Your task to perform on an android device: turn on the 12-hour format for clock Image 0: 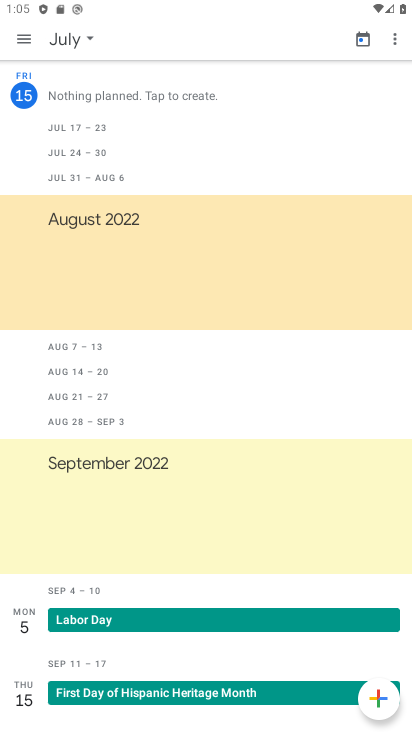
Step 0: press home button
Your task to perform on an android device: turn on the 12-hour format for clock Image 1: 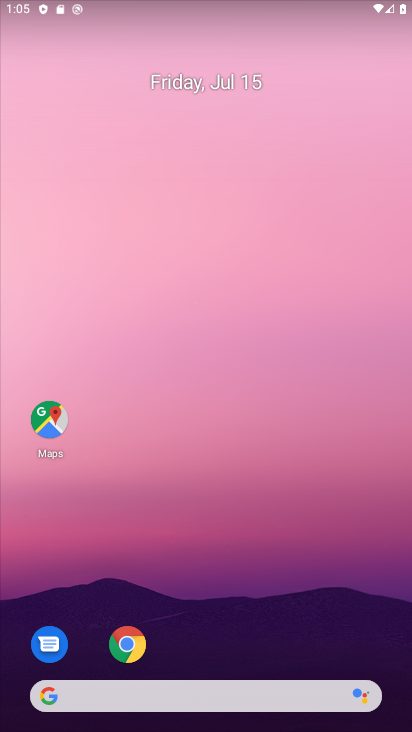
Step 1: drag from (379, 591) to (338, 18)
Your task to perform on an android device: turn on the 12-hour format for clock Image 2: 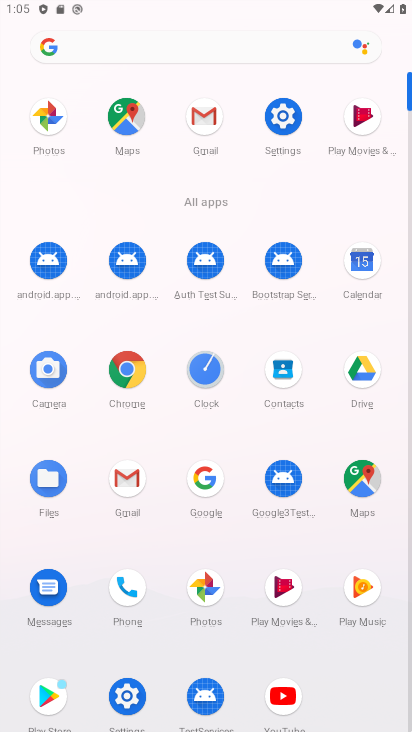
Step 2: click (209, 375)
Your task to perform on an android device: turn on the 12-hour format for clock Image 3: 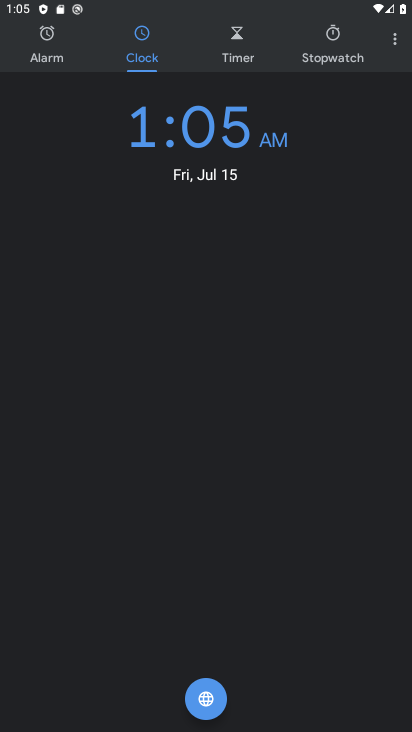
Step 3: click (389, 40)
Your task to perform on an android device: turn on the 12-hour format for clock Image 4: 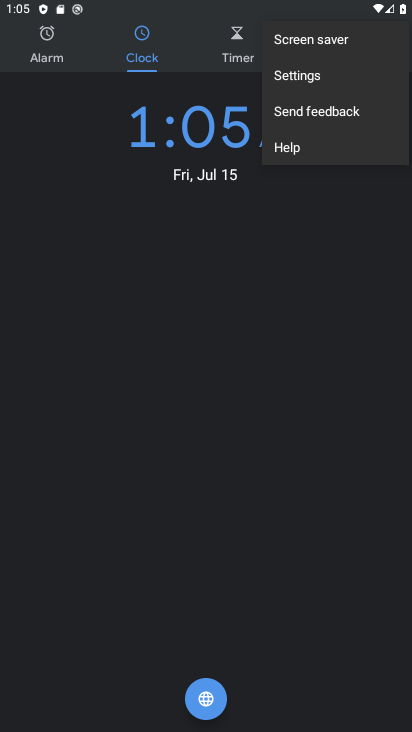
Step 4: click (304, 79)
Your task to perform on an android device: turn on the 12-hour format for clock Image 5: 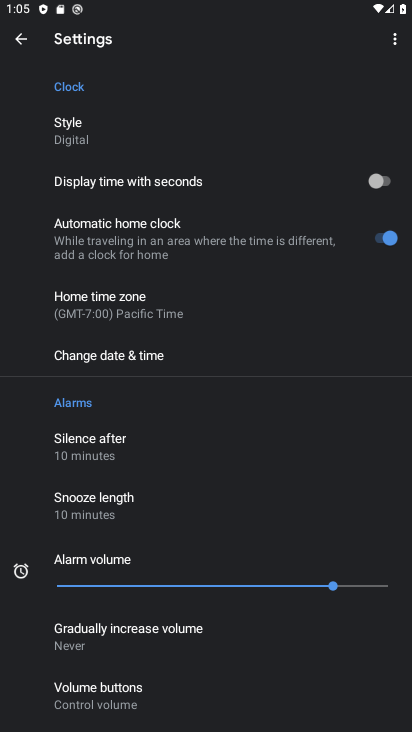
Step 5: click (140, 349)
Your task to perform on an android device: turn on the 12-hour format for clock Image 6: 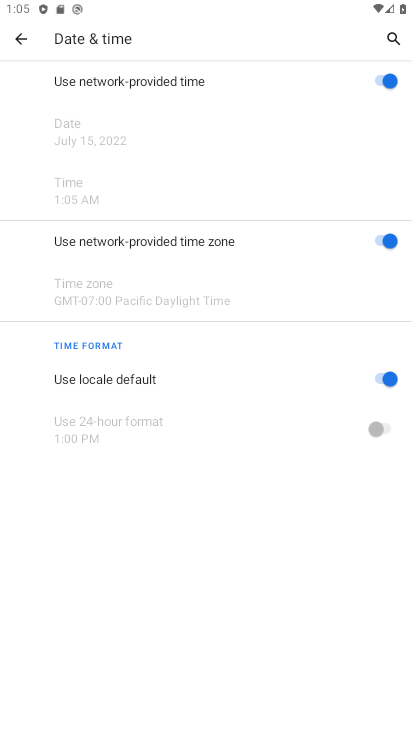
Step 6: task complete